Your task to perform on an android device: allow notifications from all sites in the chrome app Image 0: 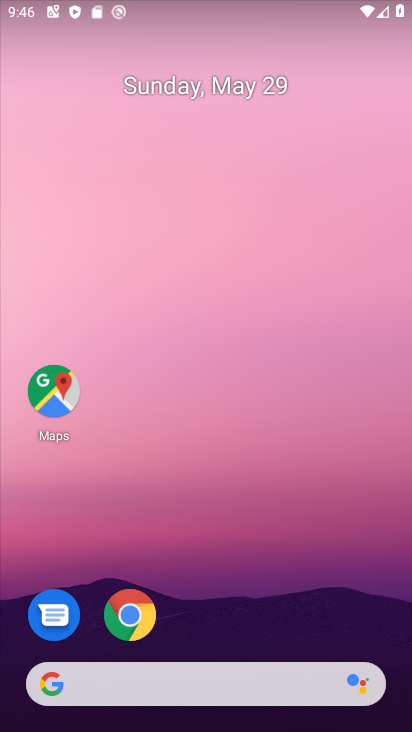
Step 0: click (123, 612)
Your task to perform on an android device: allow notifications from all sites in the chrome app Image 1: 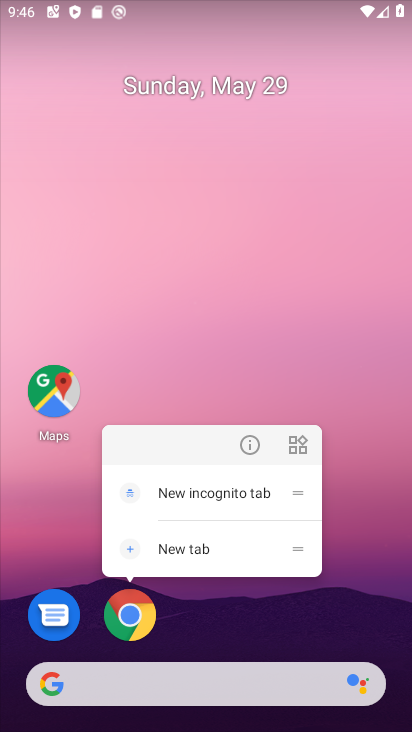
Step 1: click (137, 619)
Your task to perform on an android device: allow notifications from all sites in the chrome app Image 2: 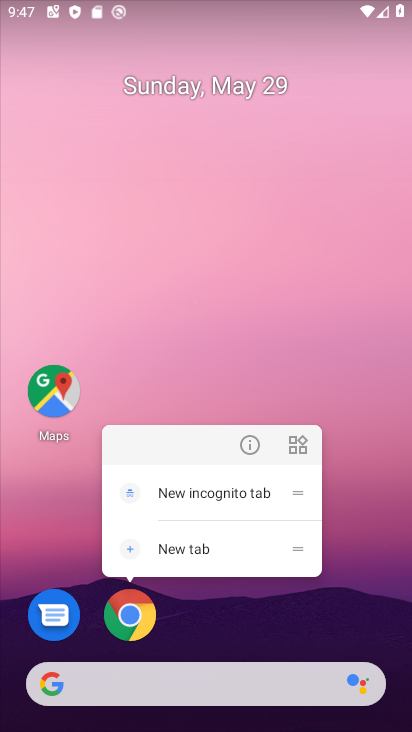
Step 2: click (121, 639)
Your task to perform on an android device: allow notifications from all sites in the chrome app Image 3: 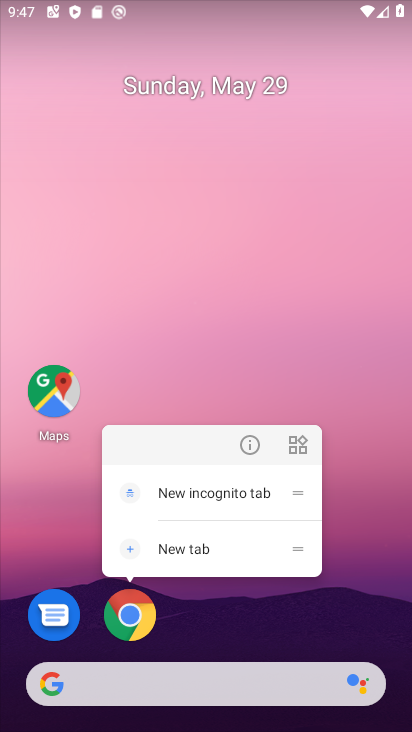
Step 3: click (126, 611)
Your task to perform on an android device: allow notifications from all sites in the chrome app Image 4: 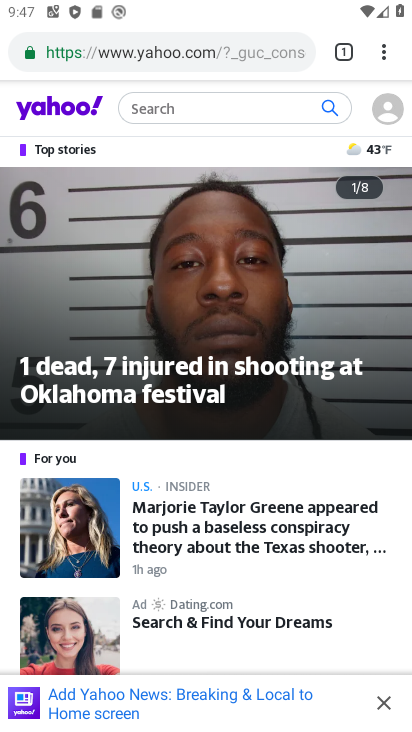
Step 4: click (382, 57)
Your task to perform on an android device: allow notifications from all sites in the chrome app Image 5: 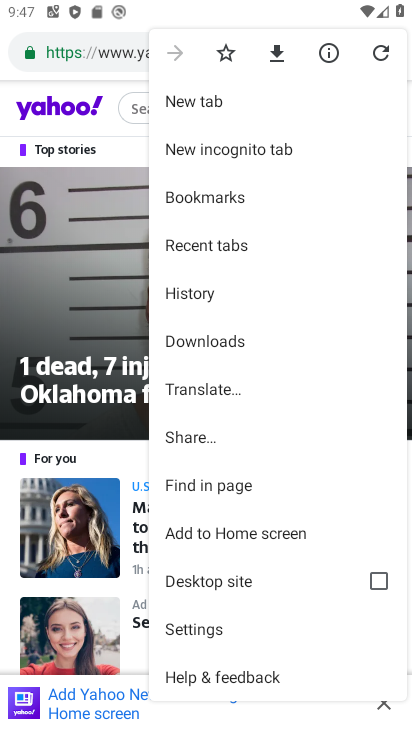
Step 5: click (217, 633)
Your task to perform on an android device: allow notifications from all sites in the chrome app Image 6: 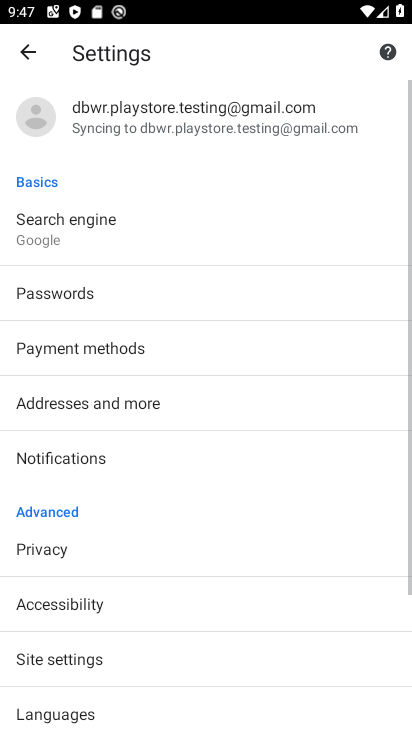
Step 6: click (61, 669)
Your task to perform on an android device: allow notifications from all sites in the chrome app Image 7: 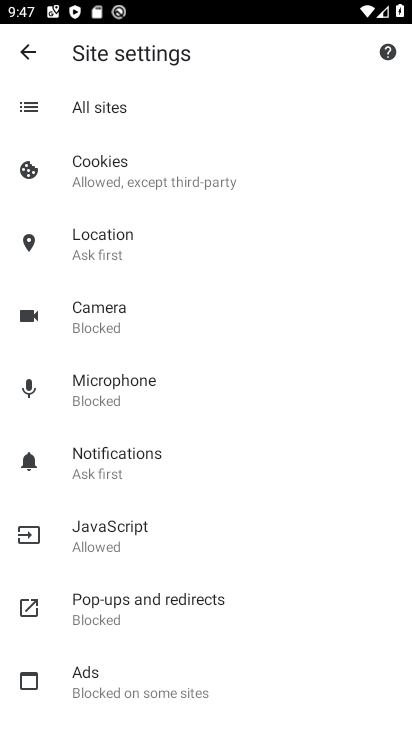
Step 7: click (137, 463)
Your task to perform on an android device: allow notifications from all sites in the chrome app Image 8: 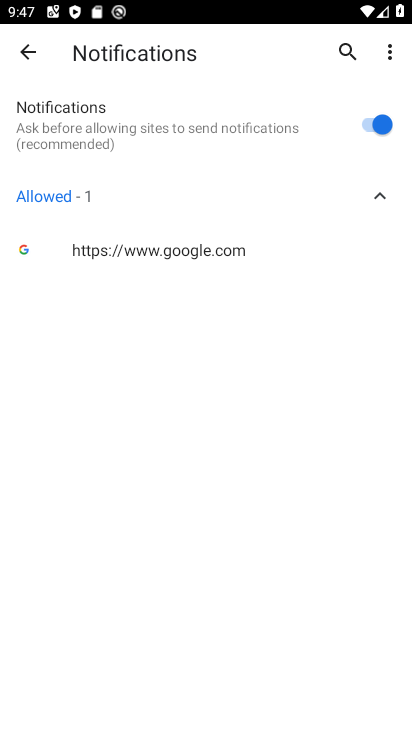
Step 8: task complete